Your task to perform on an android device: toggle airplane mode Image 0: 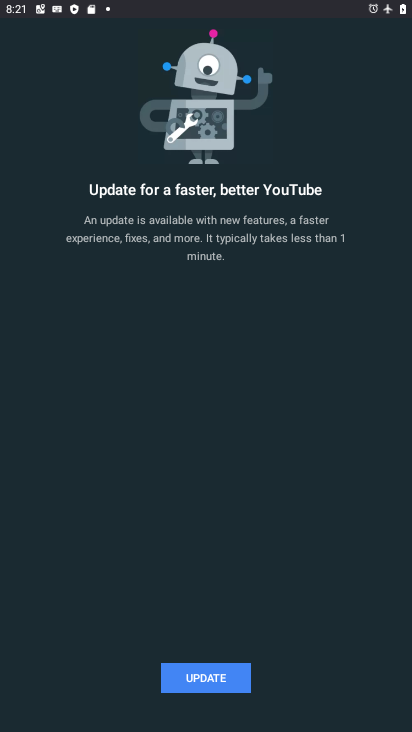
Step 0: press home button
Your task to perform on an android device: toggle airplane mode Image 1: 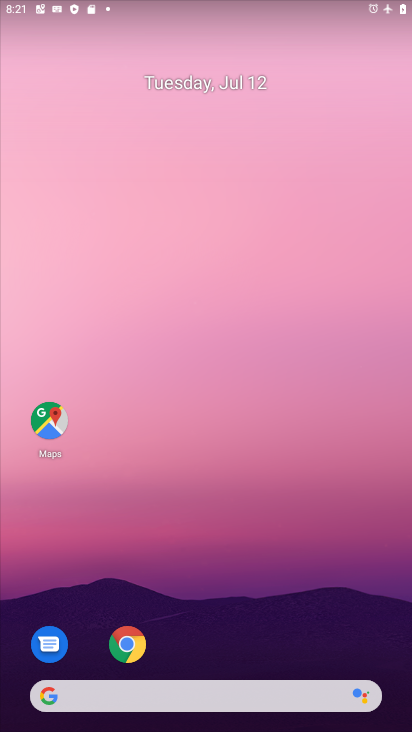
Step 1: drag from (148, 559) to (199, 258)
Your task to perform on an android device: toggle airplane mode Image 2: 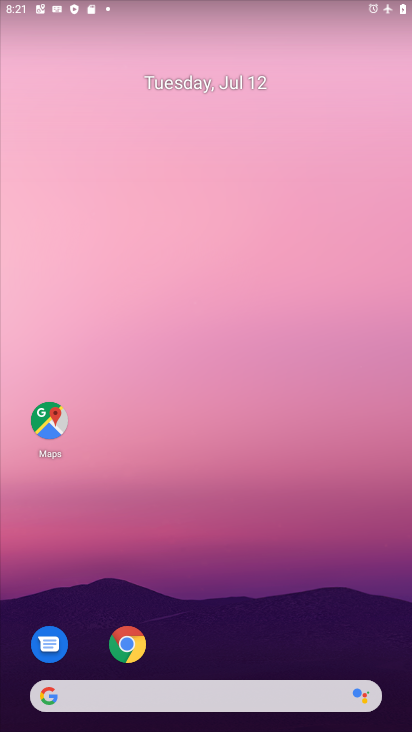
Step 2: drag from (227, 471) to (236, 197)
Your task to perform on an android device: toggle airplane mode Image 3: 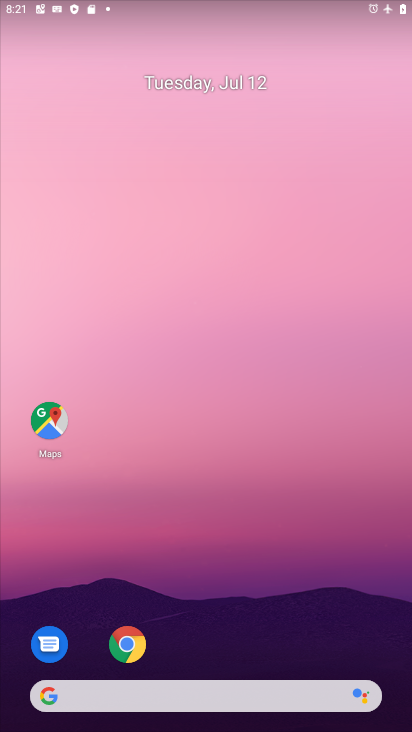
Step 3: drag from (210, 686) to (302, 59)
Your task to perform on an android device: toggle airplane mode Image 4: 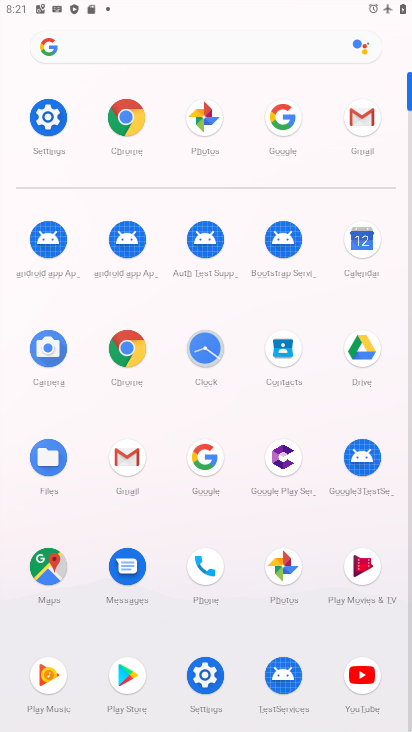
Step 4: click (40, 108)
Your task to perform on an android device: toggle airplane mode Image 5: 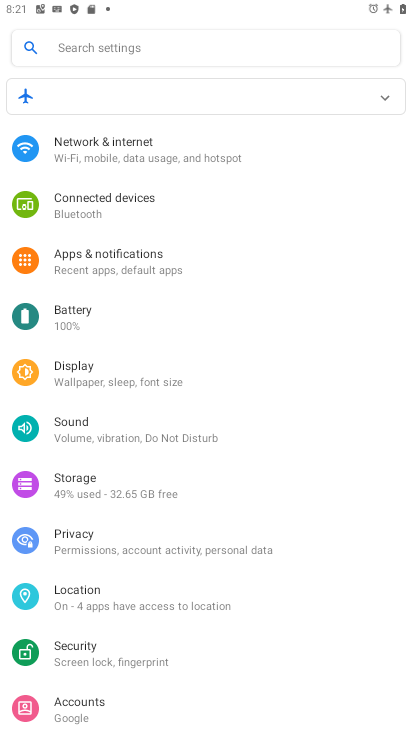
Step 5: click (91, 149)
Your task to perform on an android device: toggle airplane mode Image 6: 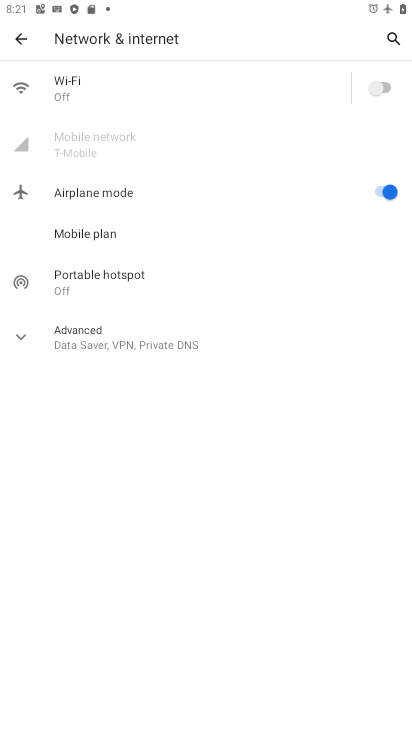
Step 6: click (383, 191)
Your task to perform on an android device: toggle airplane mode Image 7: 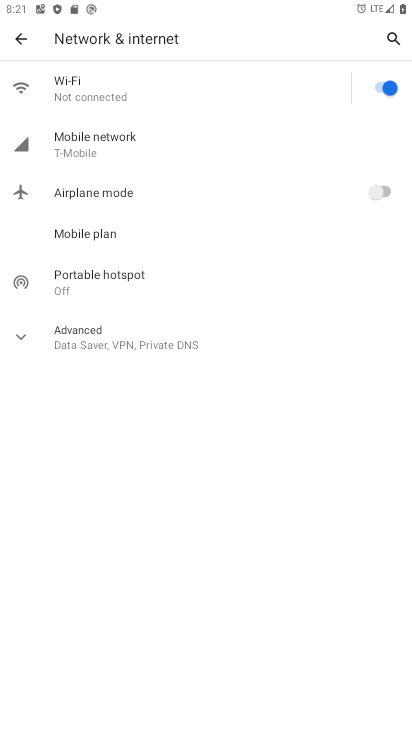
Step 7: task complete